Your task to perform on an android device: Open sound settings Image 0: 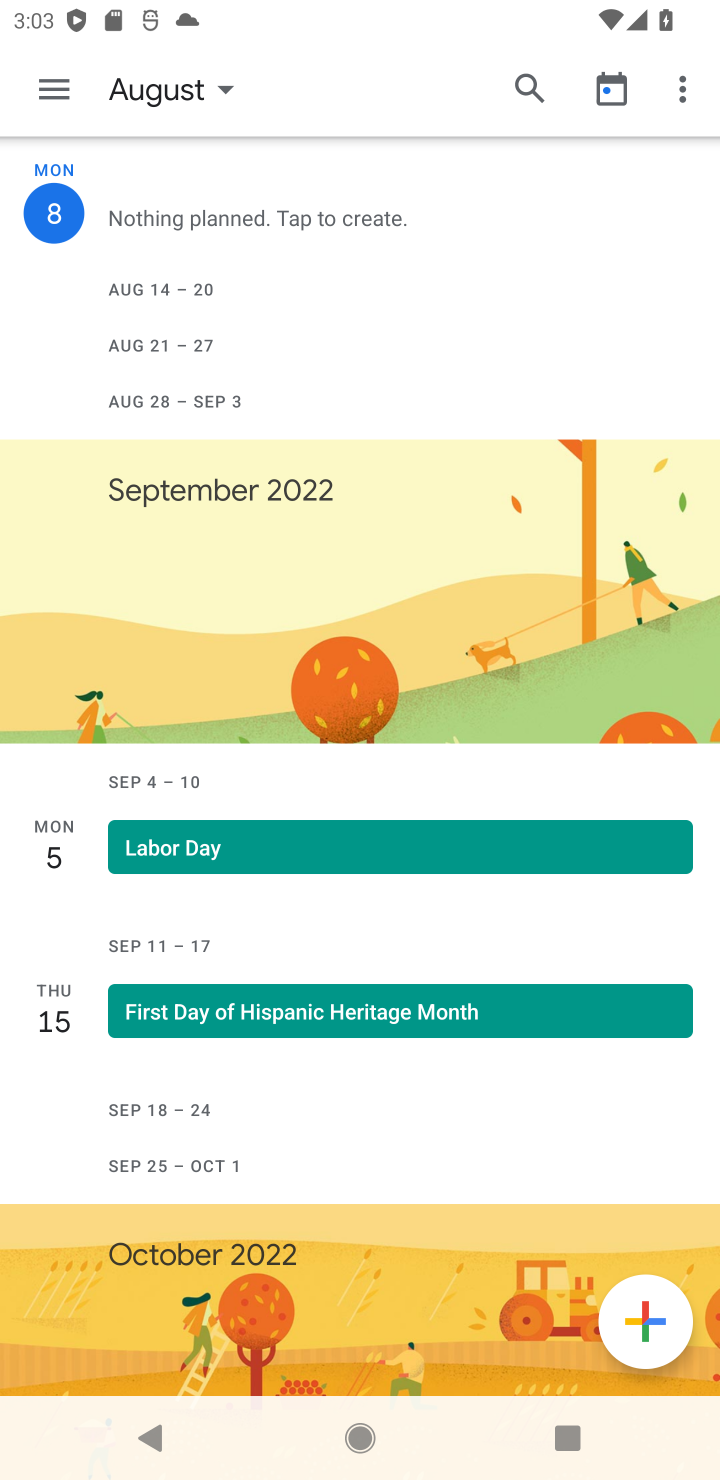
Step 0: press home button
Your task to perform on an android device: Open sound settings Image 1: 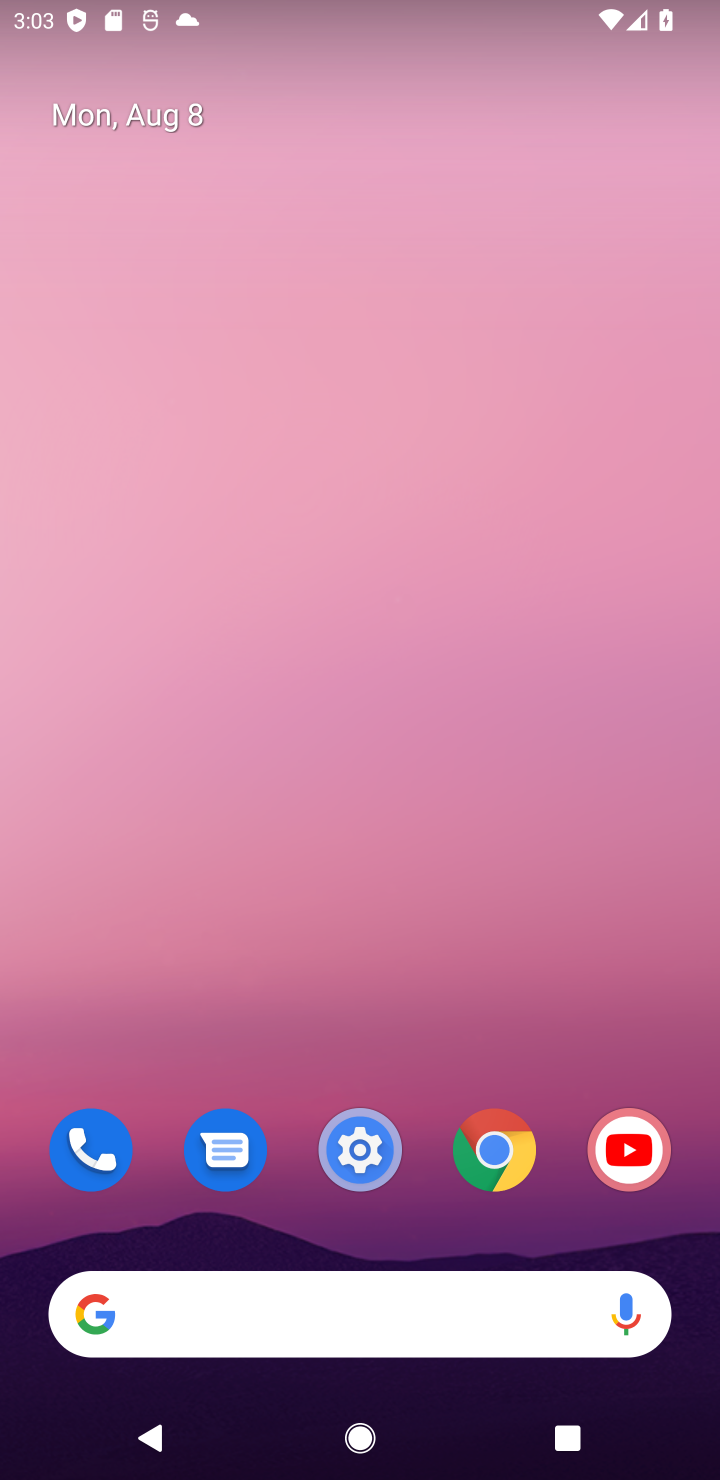
Step 1: drag from (92, 1420) to (366, 459)
Your task to perform on an android device: Open sound settings Image 2: 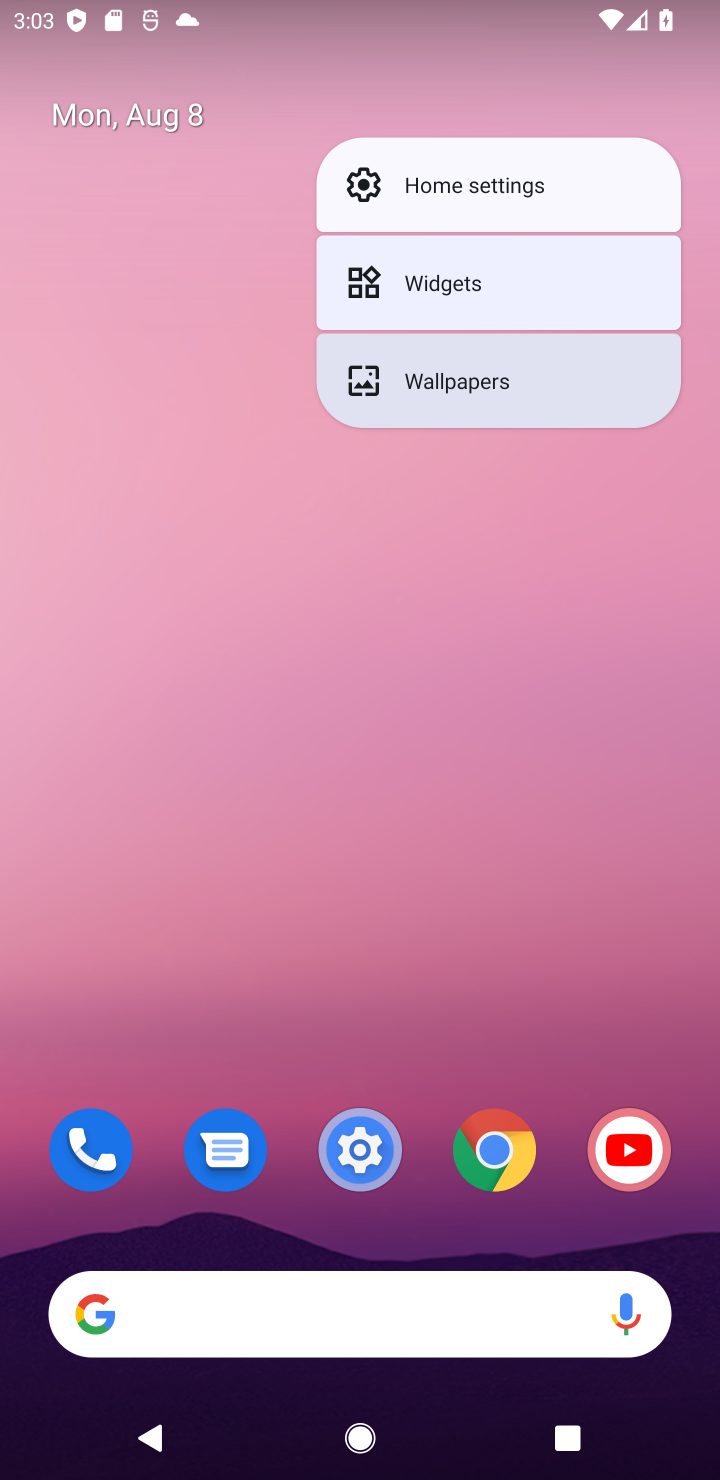
Step 2: click (367, 1124)
Your task to perform on an android device: Open sound settings Image 3: 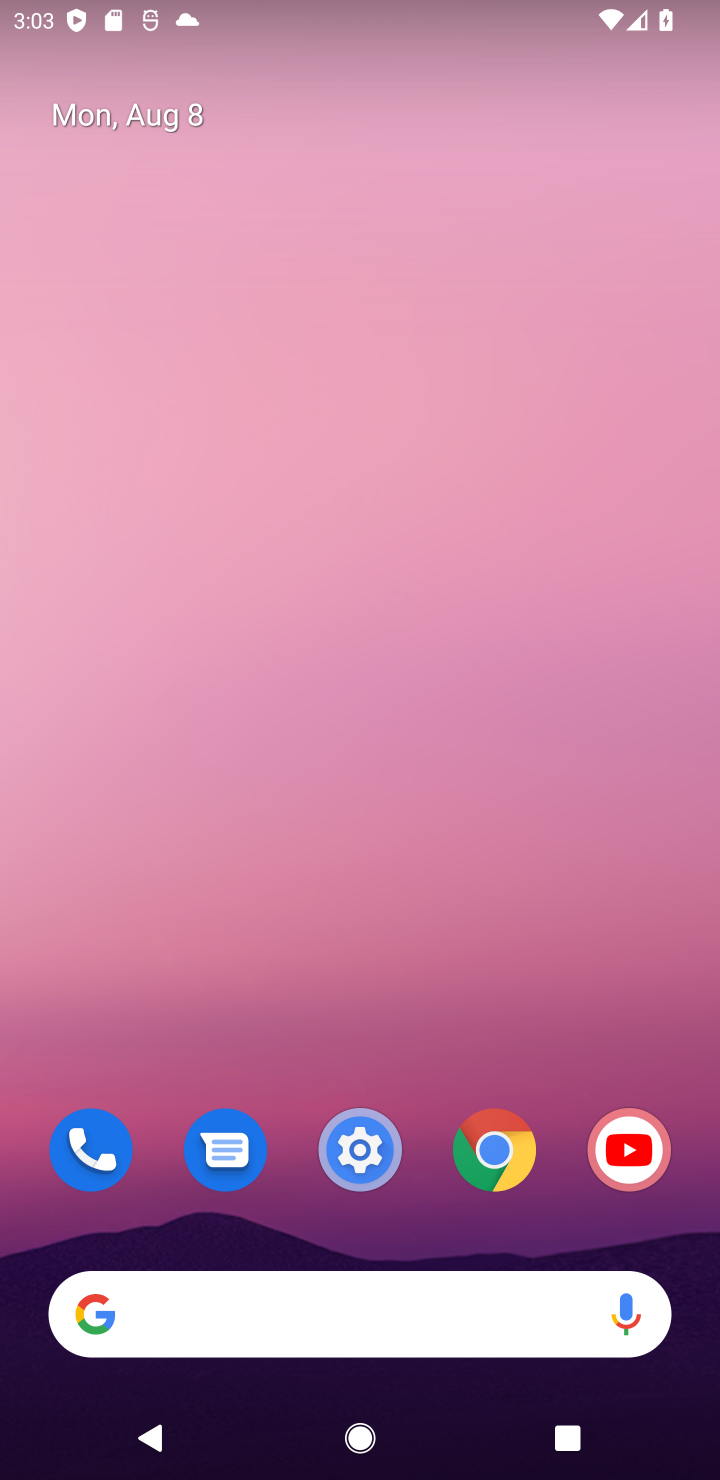
Step 3: click (365, 1141)
Your task to perform on an android device: Open sound settings Image 4: 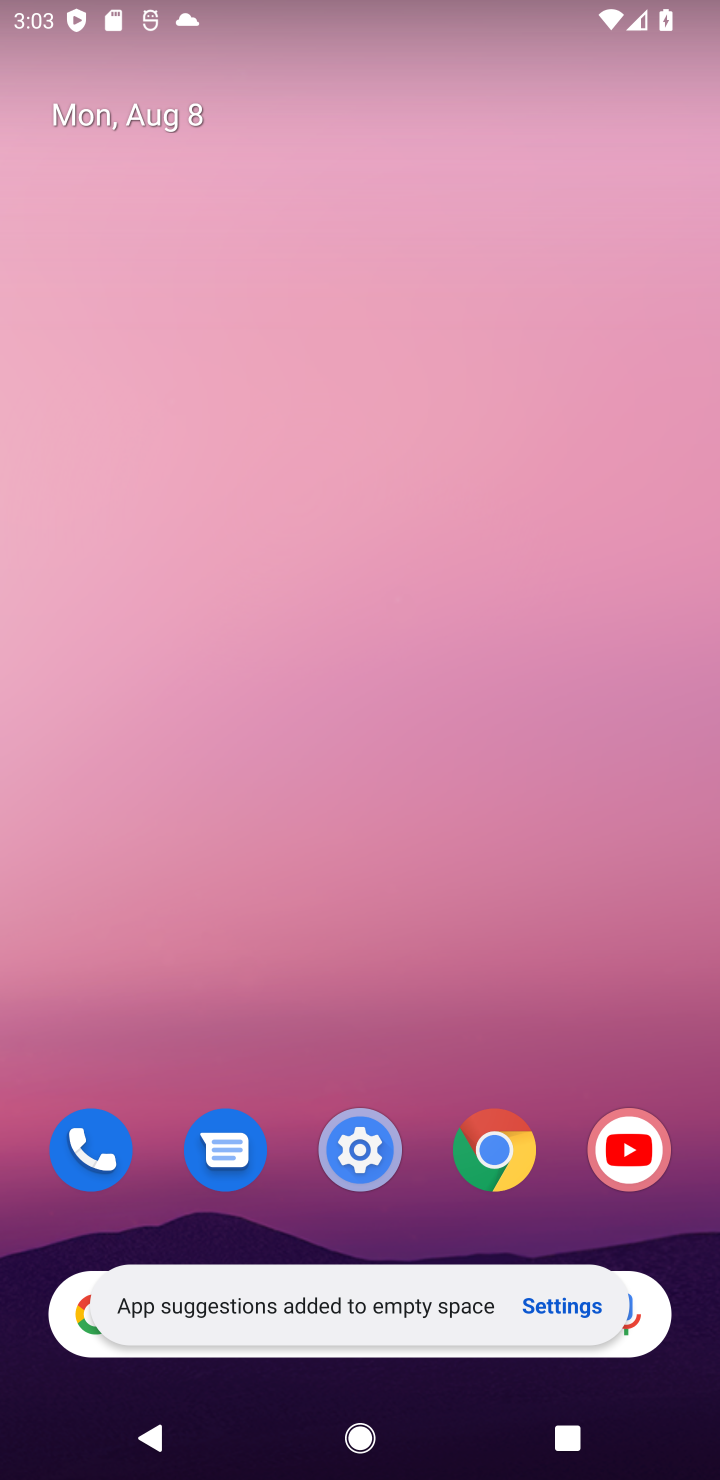
Step 4: click (352, 1121)
Your task to perform on an android device: Open sound settings Image 5: 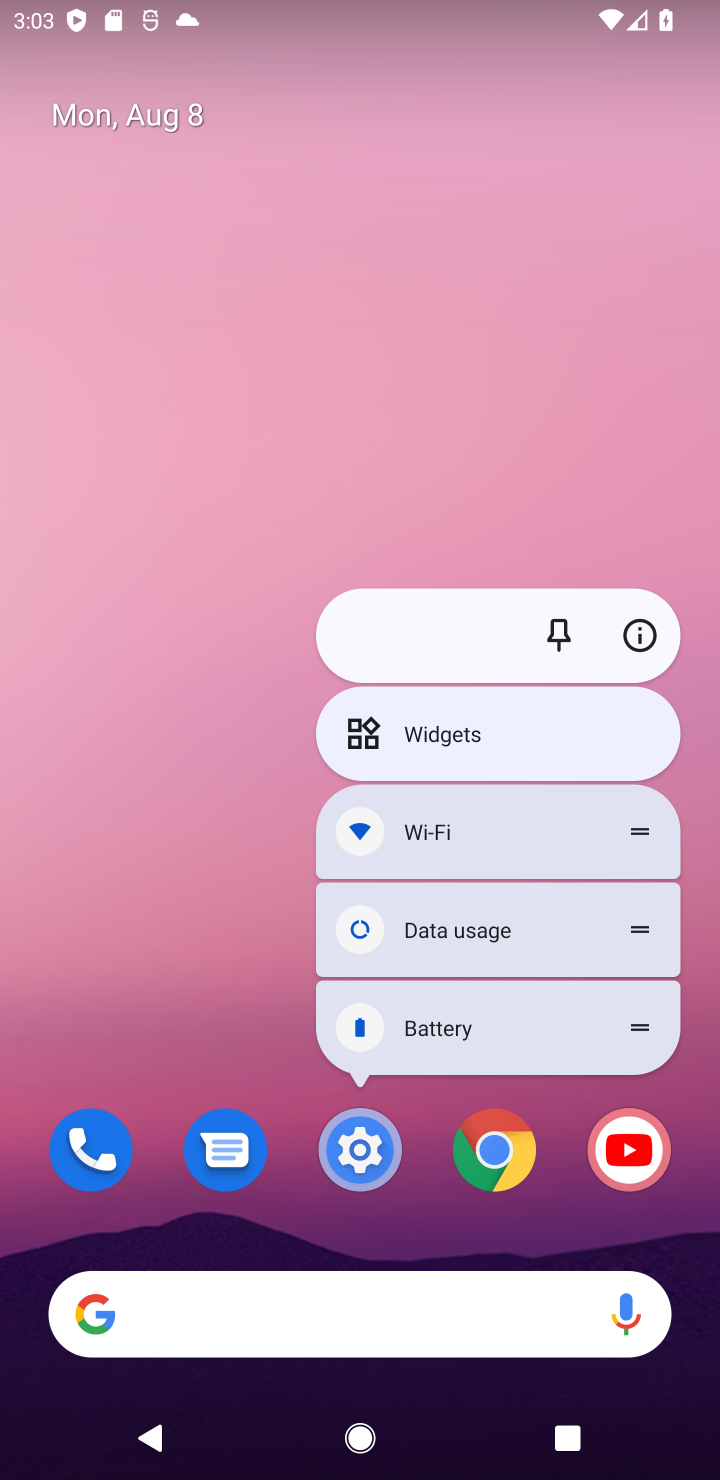
Step 5: task complete